Your task to perform on an android device: Open the map Image 0: 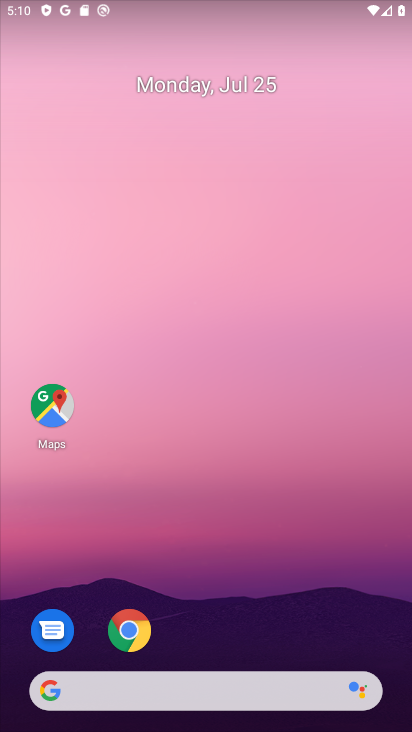
Step 0: press home button
Your task to perform on an android device: Open the map Image 1: 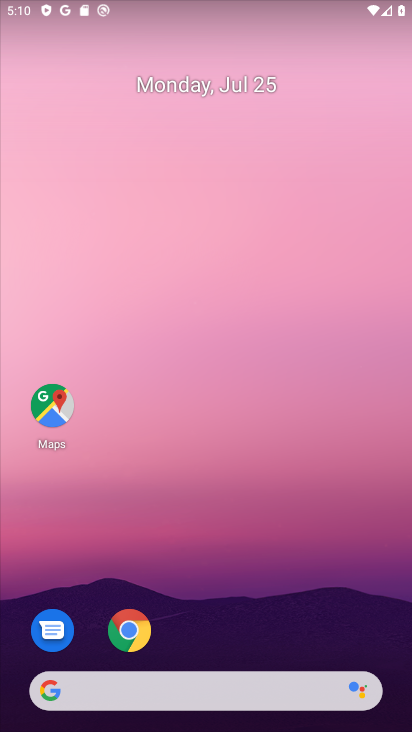
Step 1: click (43, 393)
Your task to perform on an android device: Open the map Image 2: 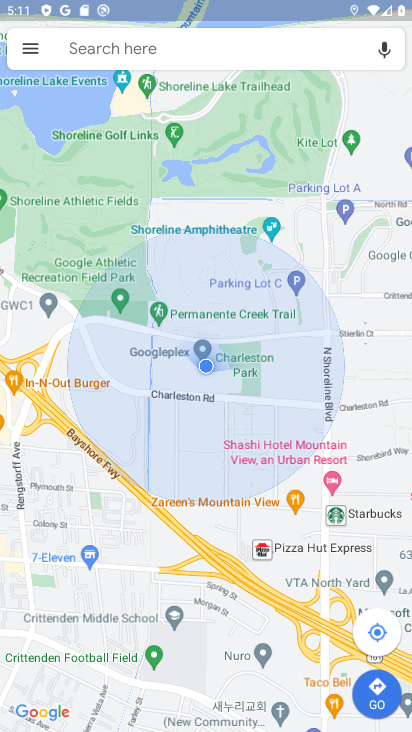
Step 2: task complete